Your task to perform on an android device: check the backup settings in the google photos Image 0: 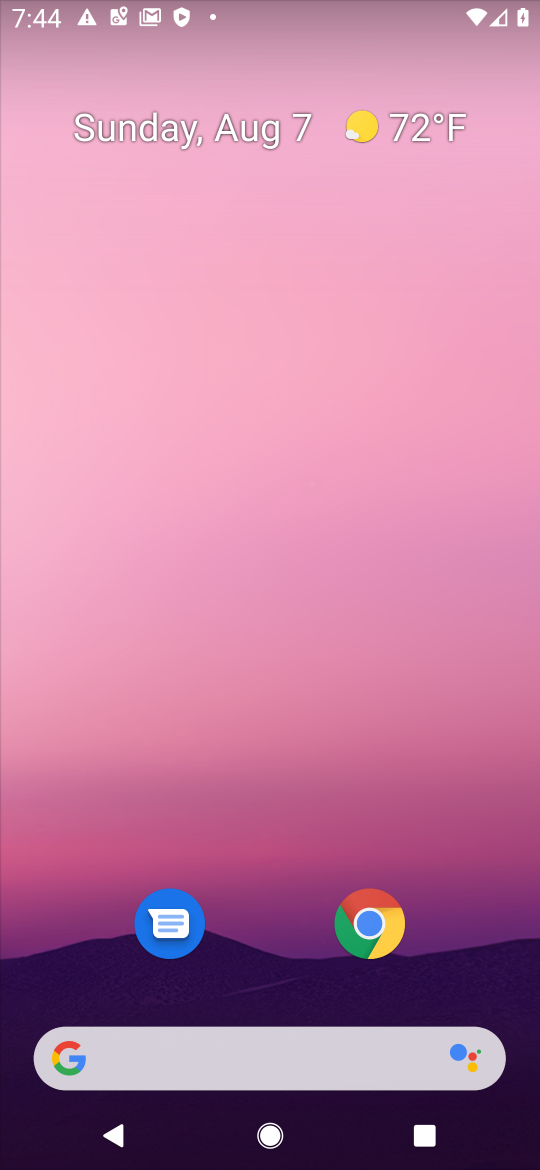
Step 0: drag from (481, 973) to (266, 102)
Your task to perform on an android device: check the backup settings in the google photos Image 1: 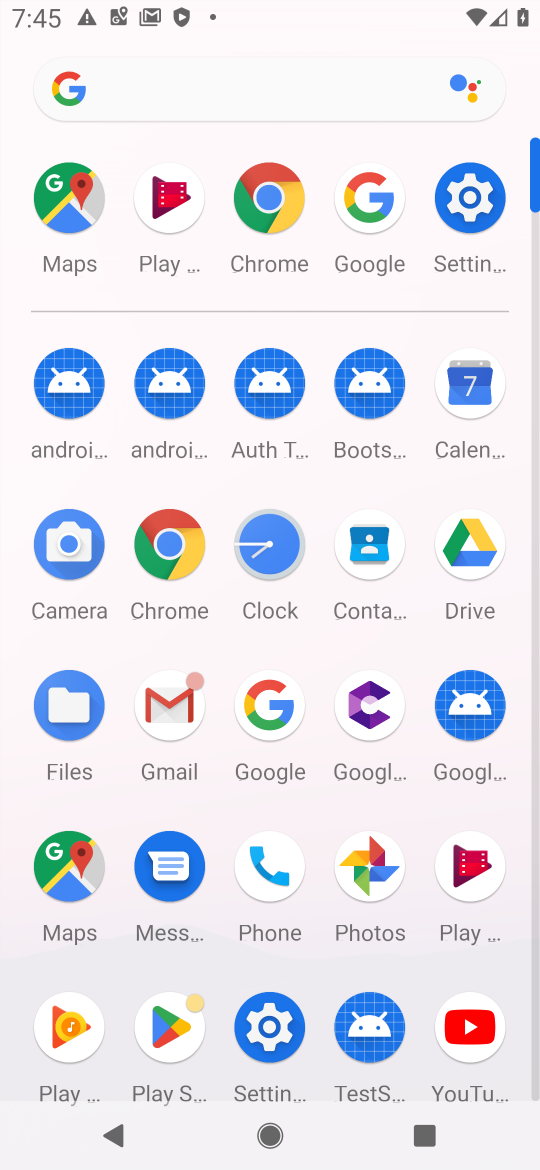
Step 1: click (355, 899)
Your task to perform on an android device: check the backup settings in the google photos Image 2: 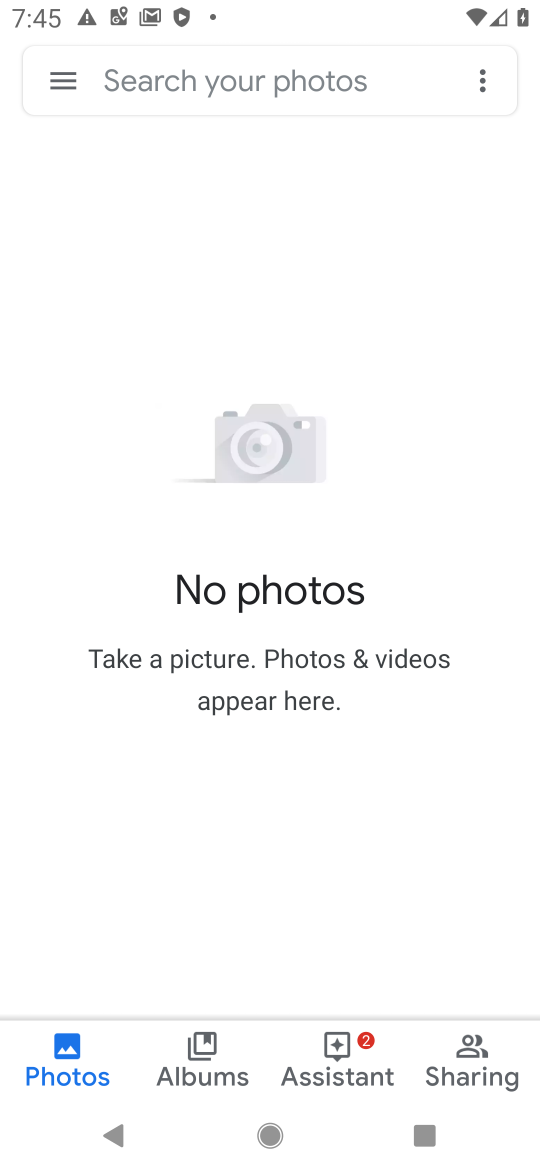
Step 2: click (46, 69)
Your task to perform on an android device: check the backup settings in the google photos Image 3: 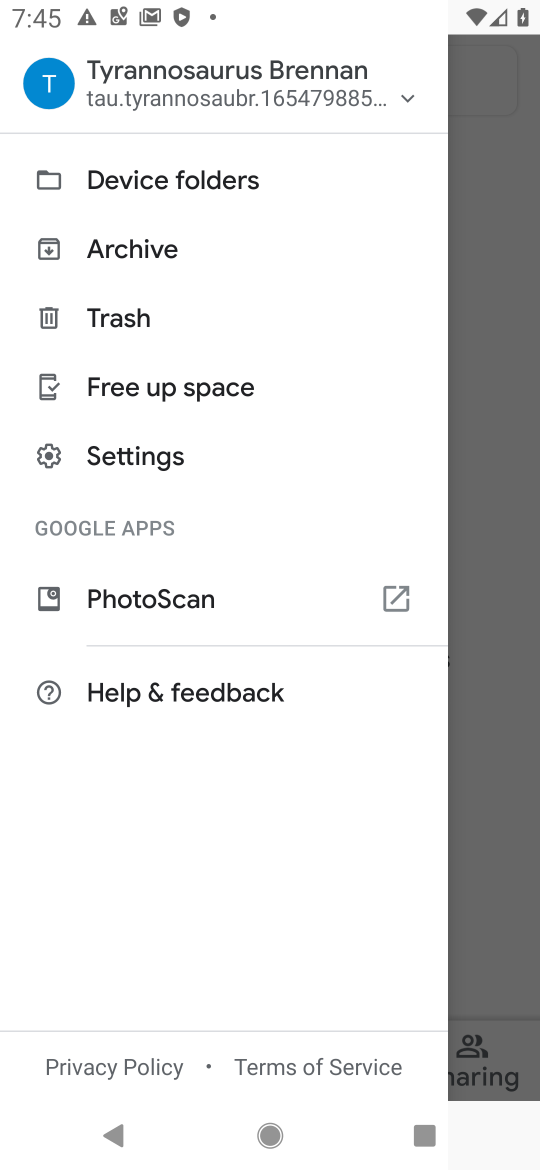
Step 3: click (143, 464)
Your task to perform on an android device: check the backup settings in the google photos Image 4: 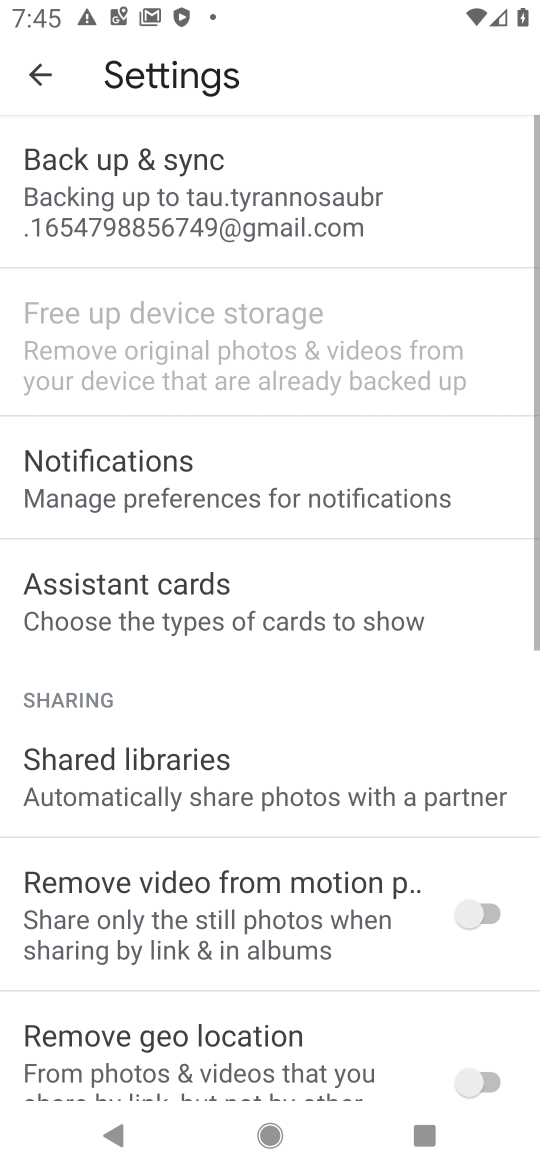
Step 4: click (165, 214)
Your task to perform on an android device: check the backup settings in the google photos Image 5: 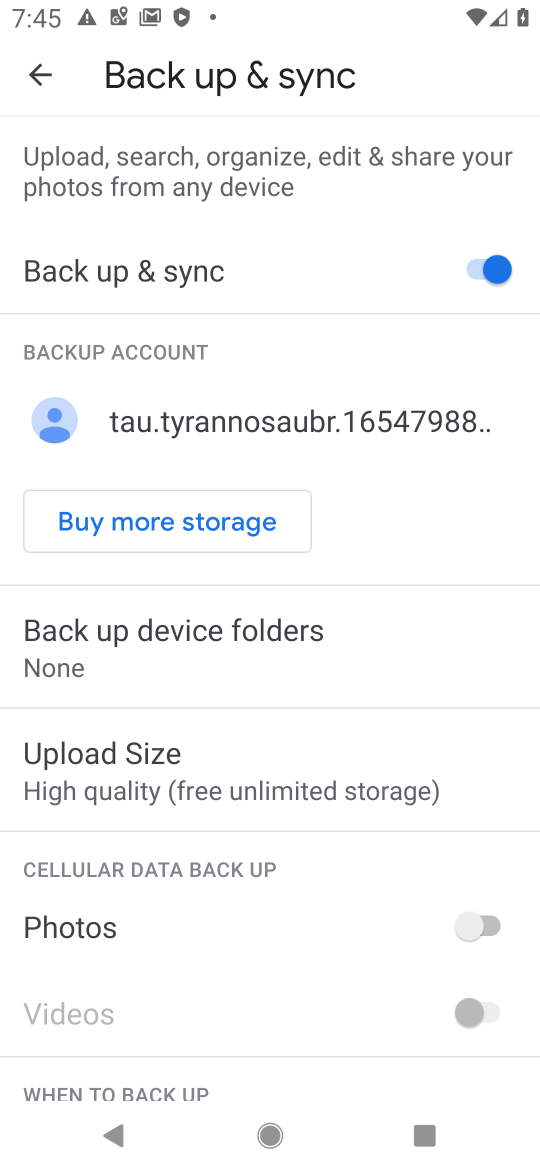
Step 5: task complete